Your task to perform on an android device: change timer sound Image 0: 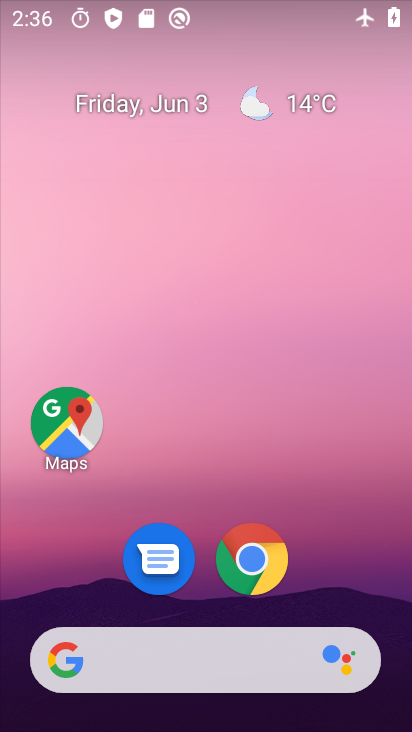
Step 0: drag from (225, 615) to (135, 101)
Your task to perform on an android device: change timer sound Image 1: 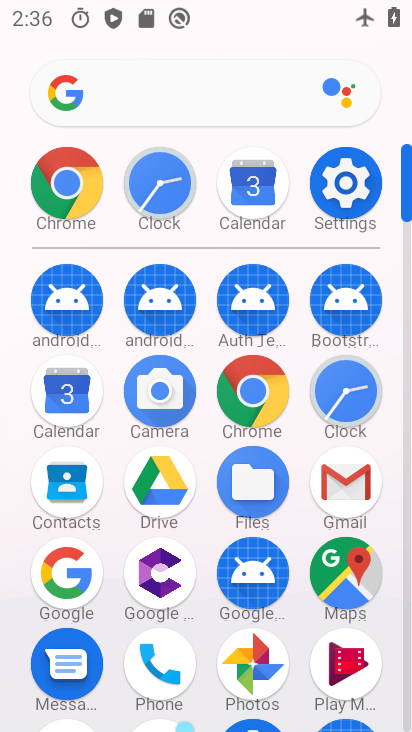
Step 1: click (334, 408)
Your task to perform on an android device: change timer sound Image 2: 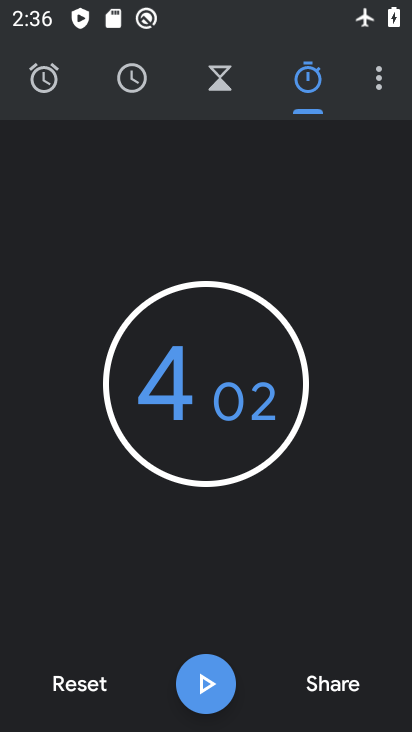
Step 2: click (364, 84)
Your task to perform on an android device: change timer sound Image 3: 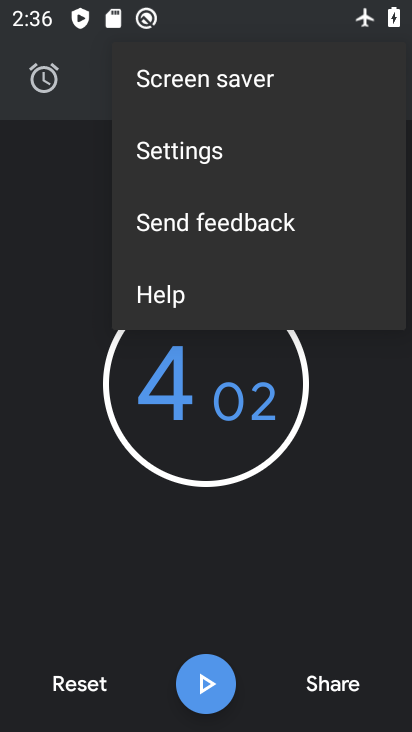
Step 3: click (203, 139)
Your task to perform on an android device: change timer sound Image 4: 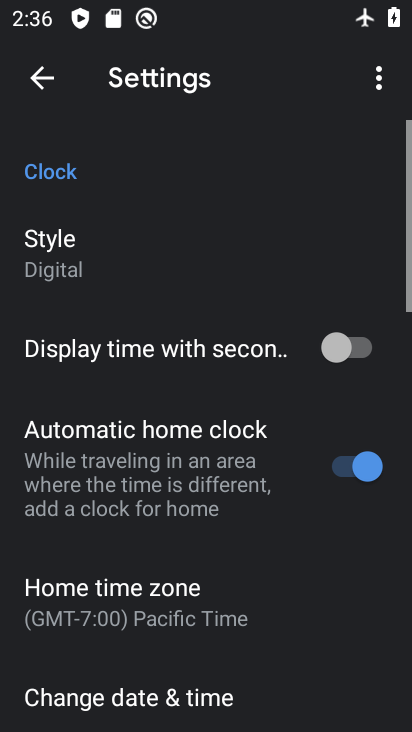
Step 4: drag from (139, 559) to (36, 0)
Your task to perform on an android device: change timer sound Image 5: 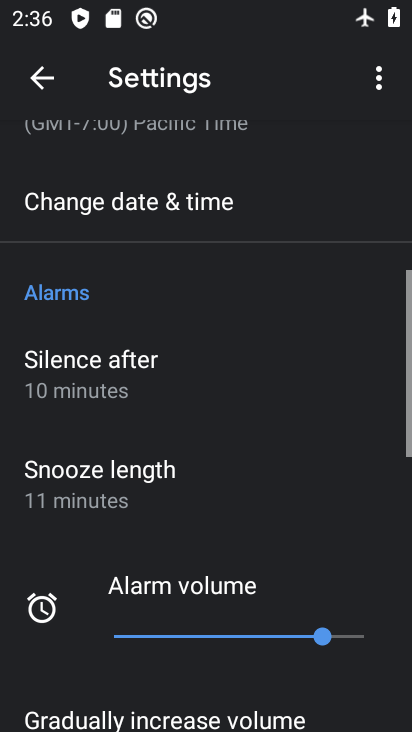
Step 5: drag from (64, 530) to (196, 6)
Your task to perform on an android device: change timer sound Image 6: 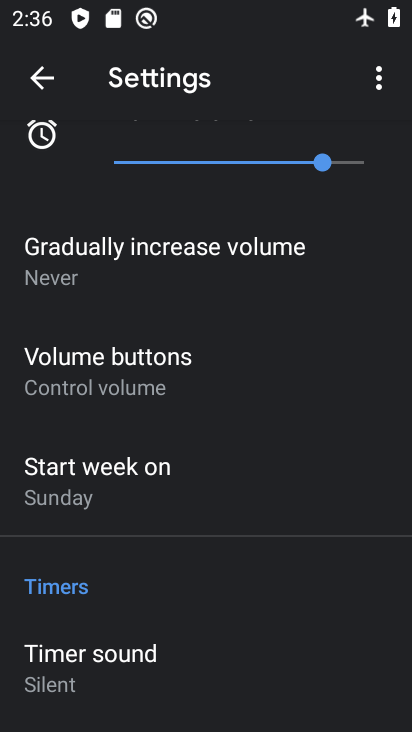
Step 6: click (155, 684)
Your task to perform on an android device: change timer sound Image 7: 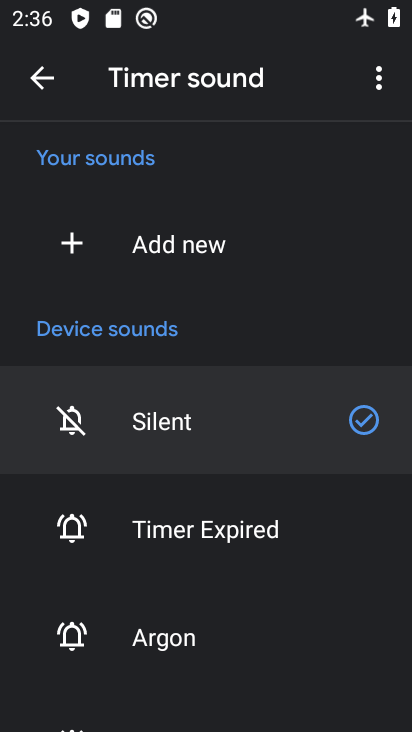
Step 7: click (202, 527)
Your task to perform on an android device: change timer sound Image 8: 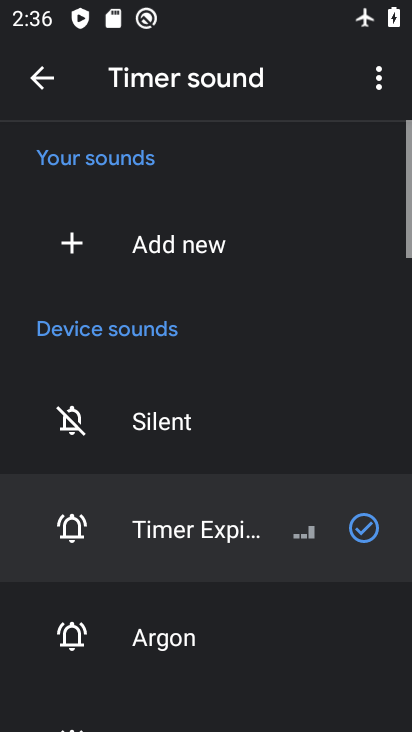
Step 8: task complete